Your task to perform on an android device: all mails in gmail Image 0: 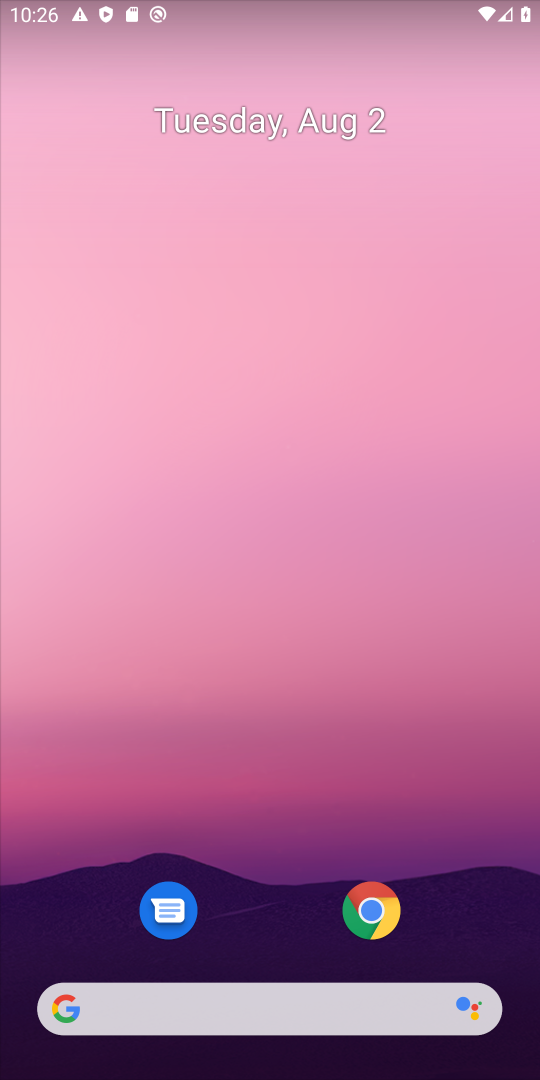
Step 0: drag from (249, 957) to (508, 84)
Your task to perform on an android device: all mails in gmail Image 1: 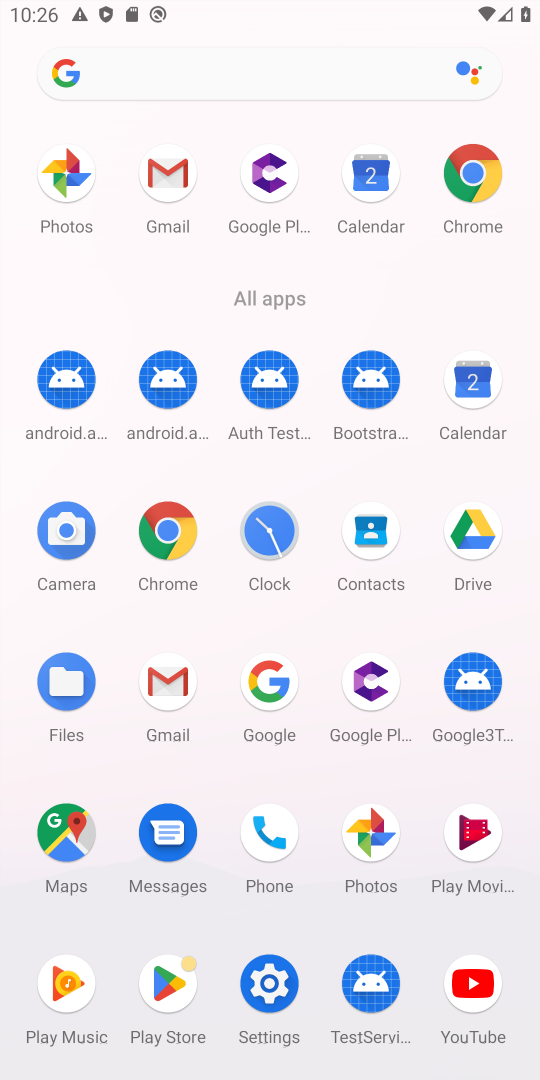
Step 1: click (159, 699)
Your task to perform on an android device: all mails in gmail Image 2: 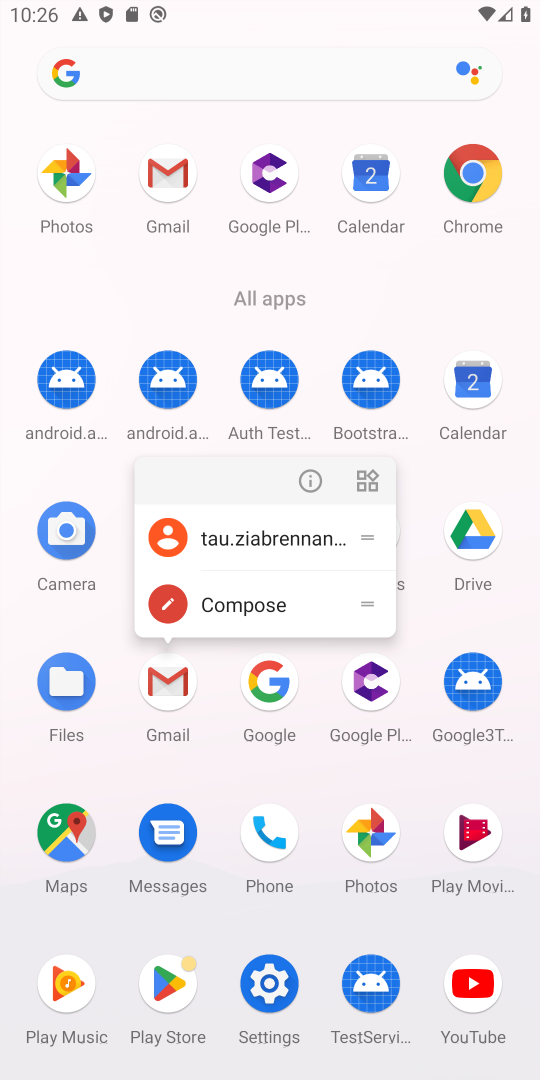
Step 2: click (181, 702)
Your task to perform on an android device: all mails in gmail Image 3: 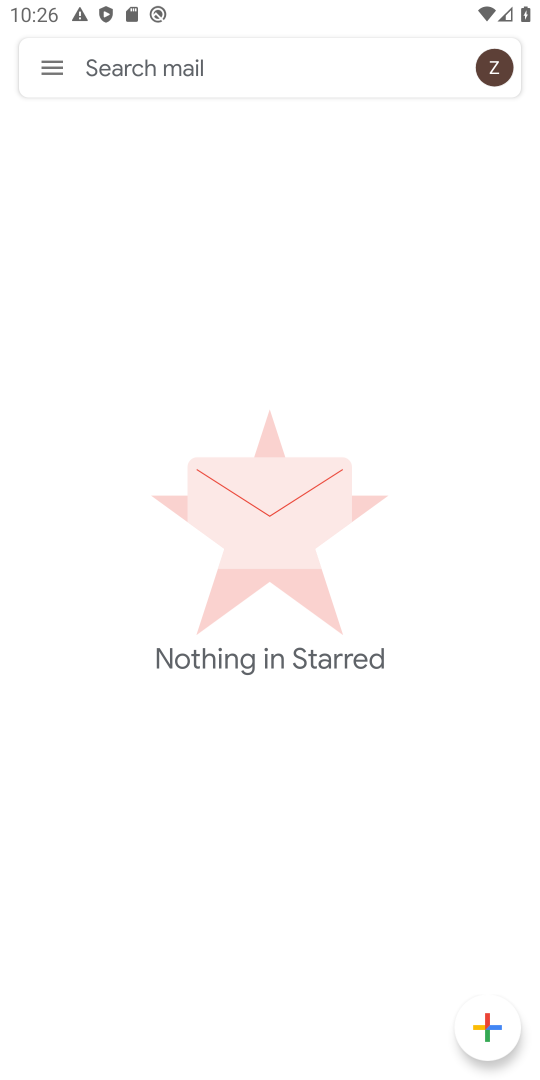
Step 3: click (46, 62)
Your task to perform on an android device: all mails in gmail Image 4: 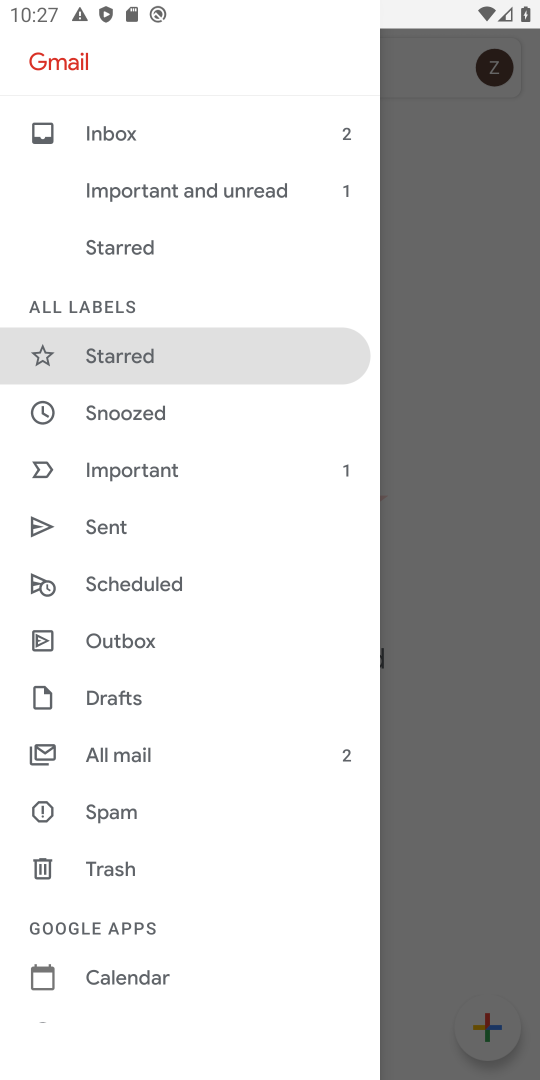
Step 4: click (129, 763)
Your task to perform on an android device: all mails in gmail Image 5: 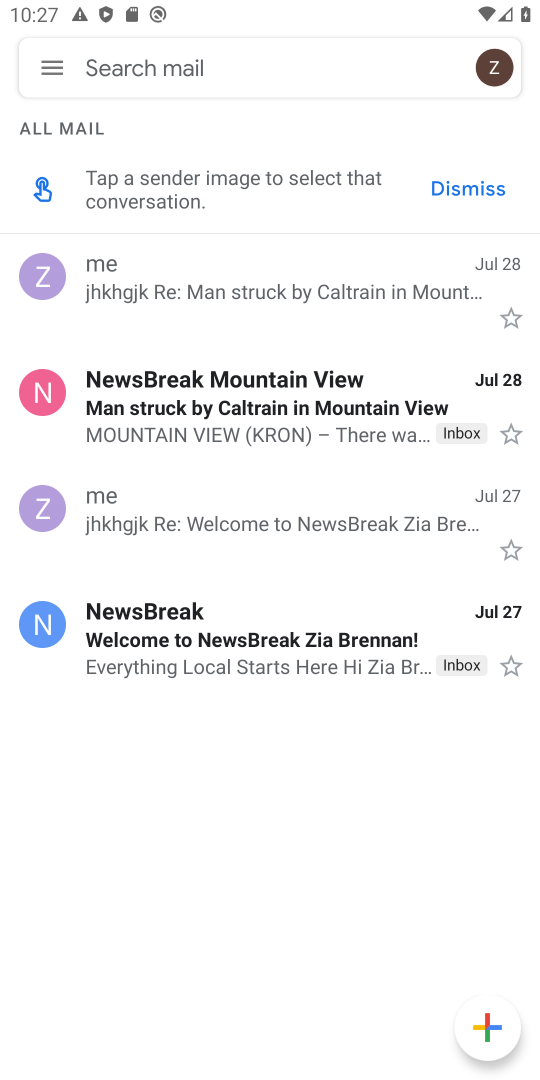
Step 5: task complete